Your task to perform on an android device: install app "TextNow: Call + Text Unlimited" Image 0: 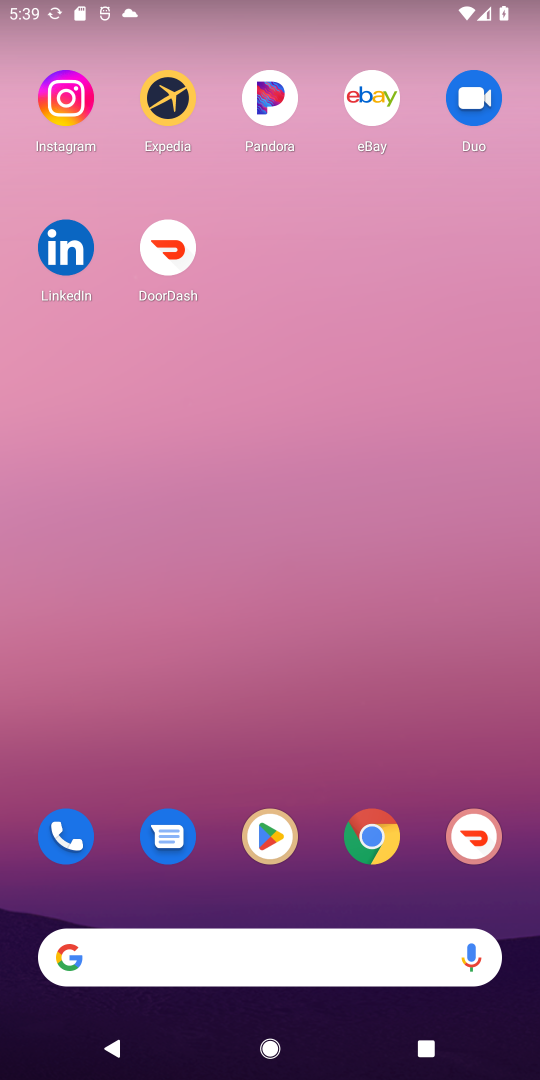
Step 0: click (268, 831)
Your task to perform on an android device: install app "TextNow: Call + Text Unlimited" Image 1: 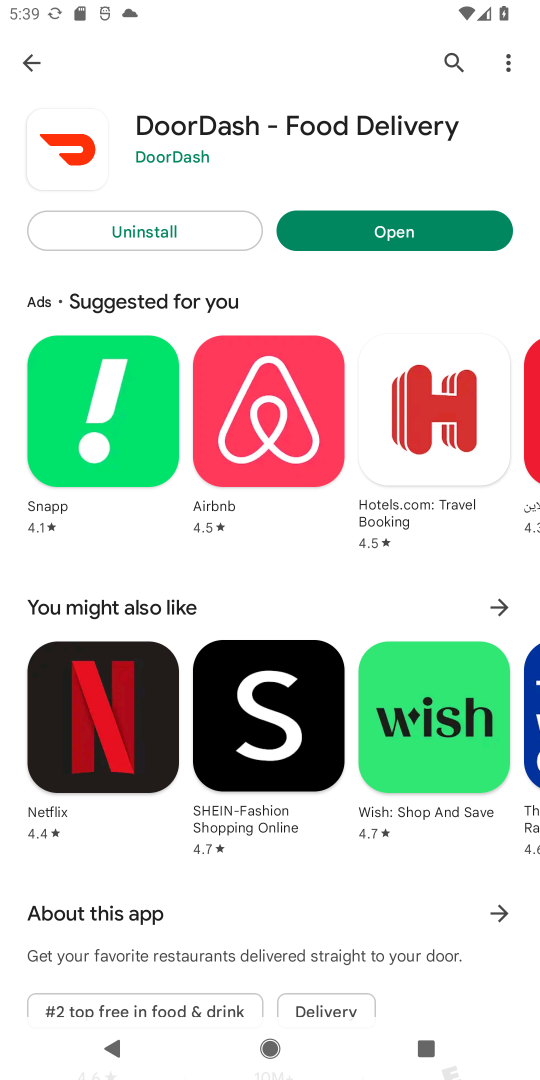
Step 1: click (450, 61)
Your task to perform on an android device: install app "TextNow: Call + Text Unlimited" Image 2: 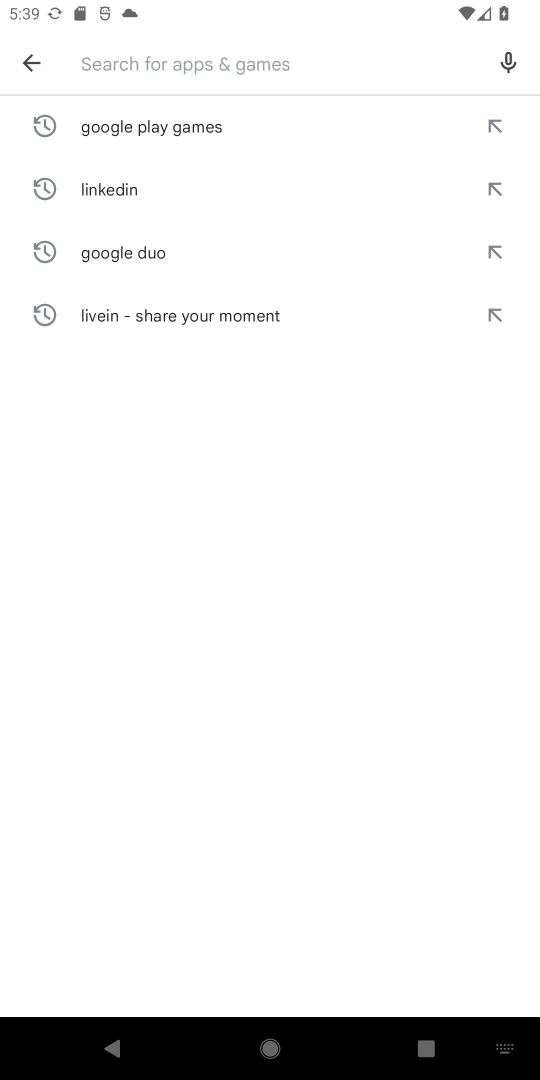
Step 2: type "TextNow: Call + Text Unlimited"
Your task to perform on an android device: install app "TextNow: Call + Text Unlimited" Image 3: 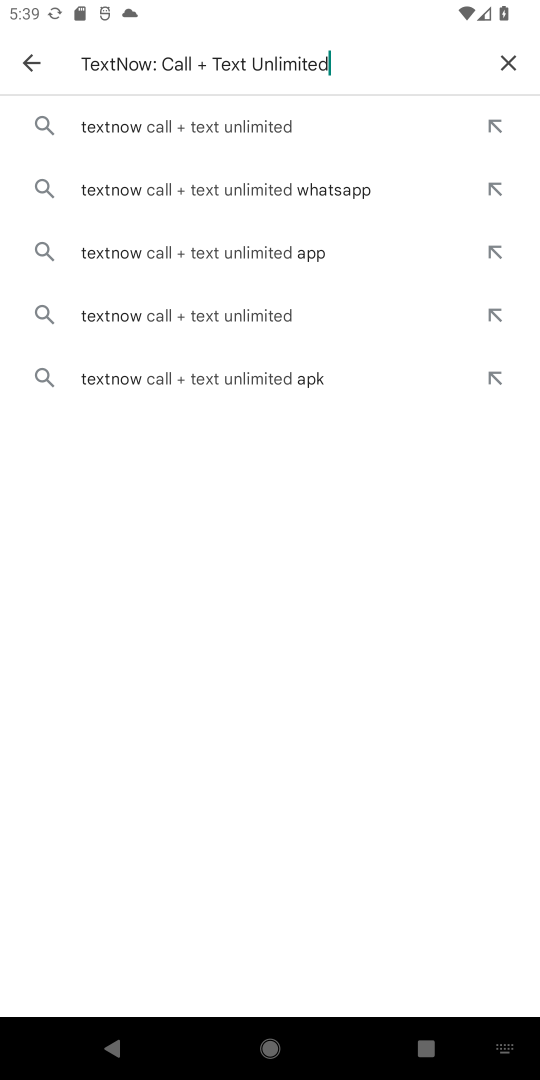
Step 3: click (143, 122)
Your task to perform on an android device: install app "TextNow: Call + Text Unlimited" Image 4: 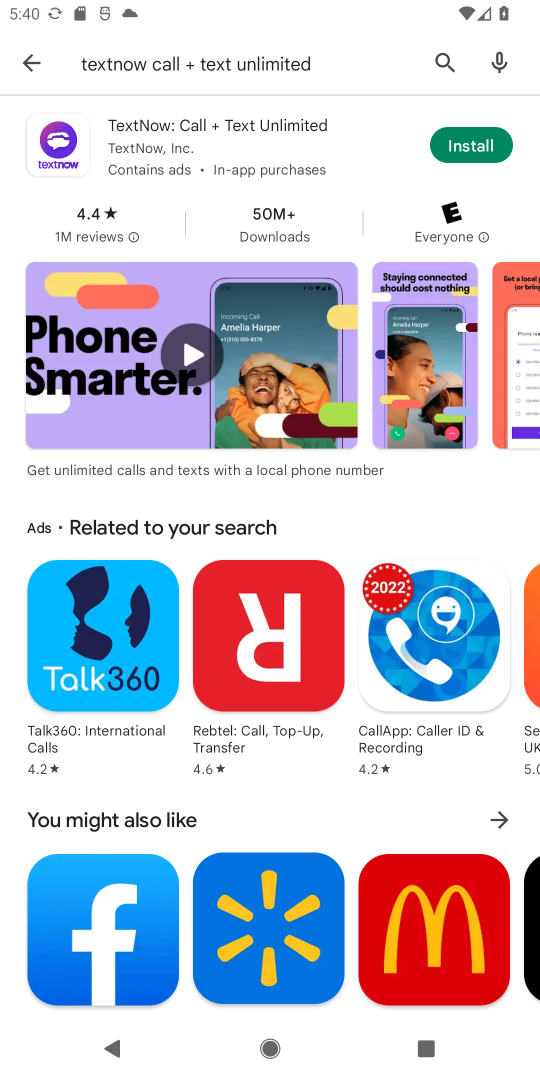
Step 4: click (456, 140)
Your task to perform on an android device: install app "TextNow: Call + Text Unlimited" Image 5: 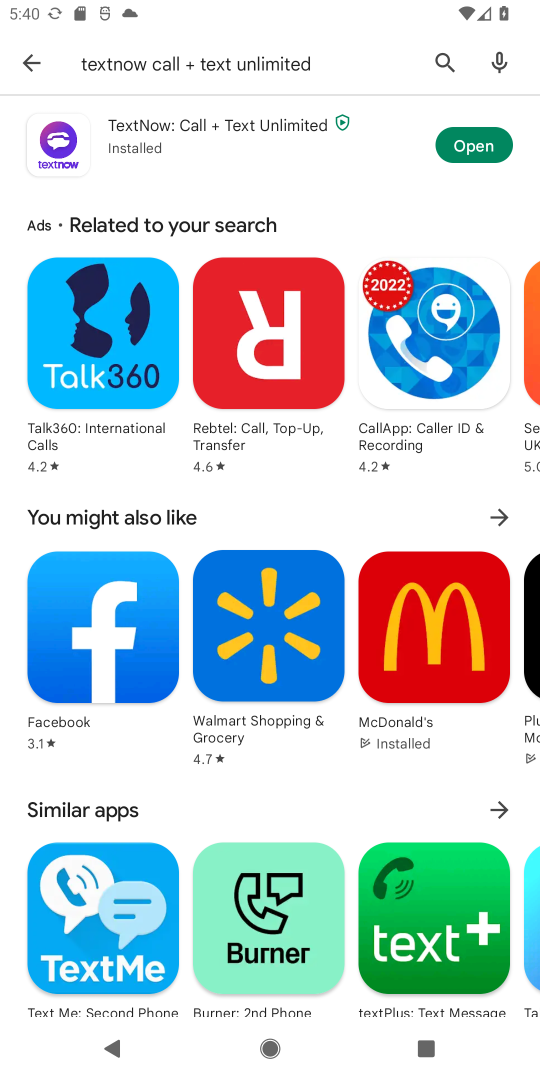
Step 5: task complete